Your task to perform on an android device: Go to Reddit.com Image 0: 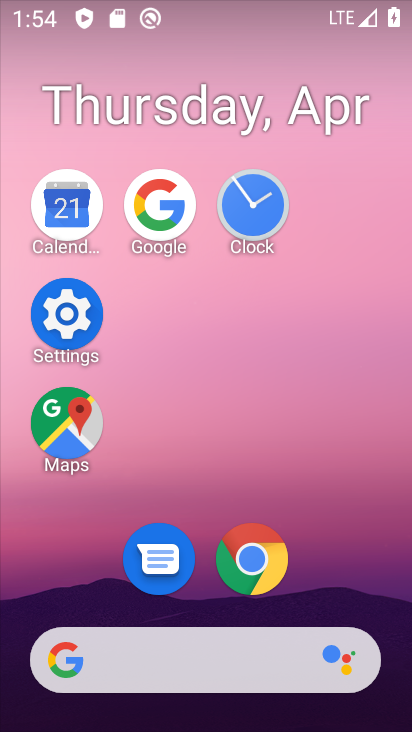
Step 0: click (268, 570)
Your task to perform on an android device: Go to Reddit.com Image 1: 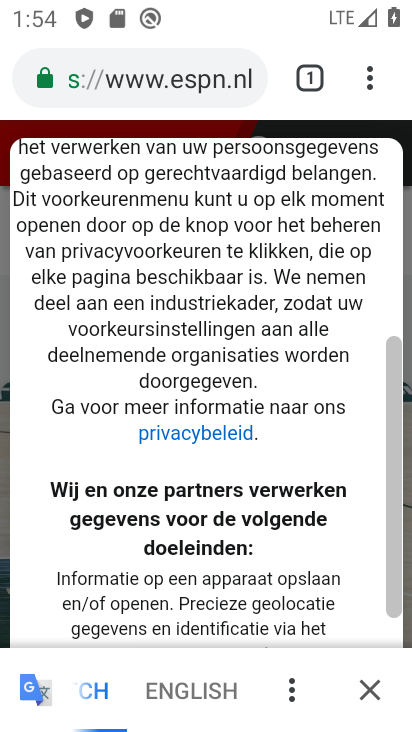
Step 1: click (312, 73)
Your task to perform on an android device: Go to Reddit.com Image 2: 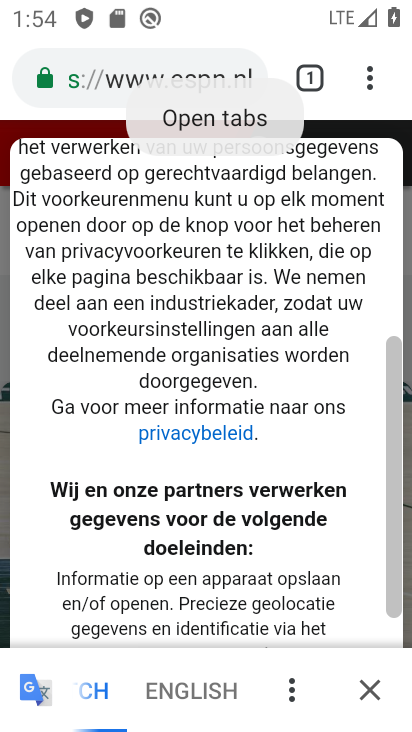
Step 2: click (302, 75)
Your task to perform on an android device: Go to Reddit.com Image 3: 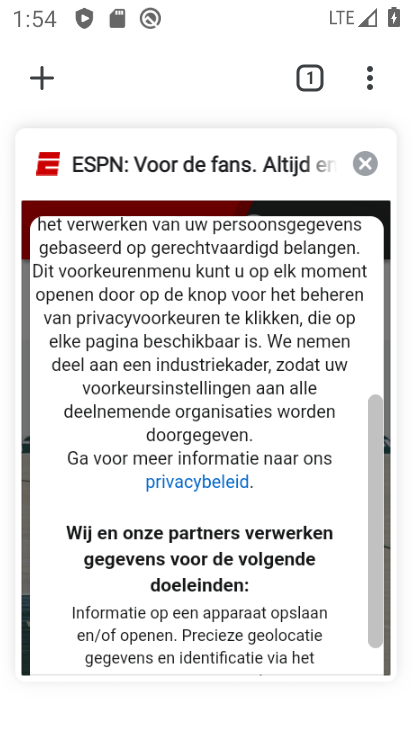
Step 3: click (57, 80)
Your task to perform on an android device: Go to Reddit.com Image 4: 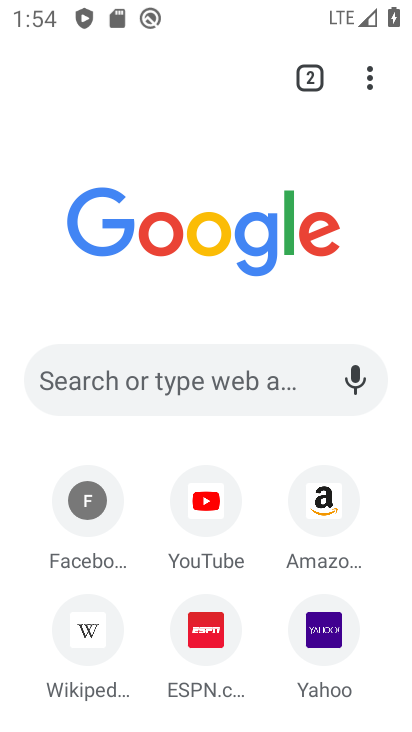
Step 4: click (217, 366)
Your task to perform on an android device: Go to Reddit.com Image 5: 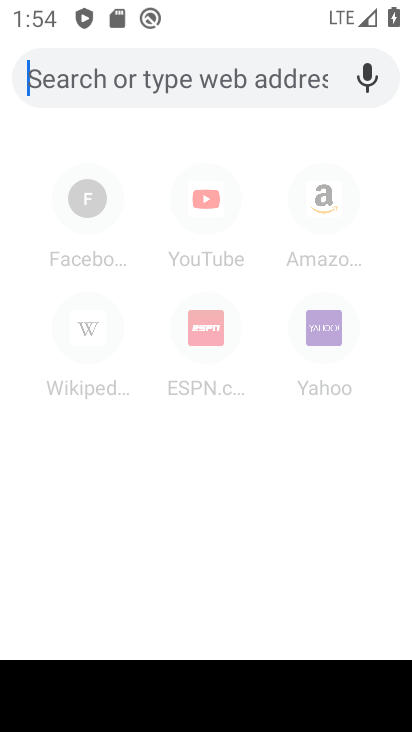
Step 5: type "reddit"
Your task to perform on an android device: Go to Reddit.com Image 6: 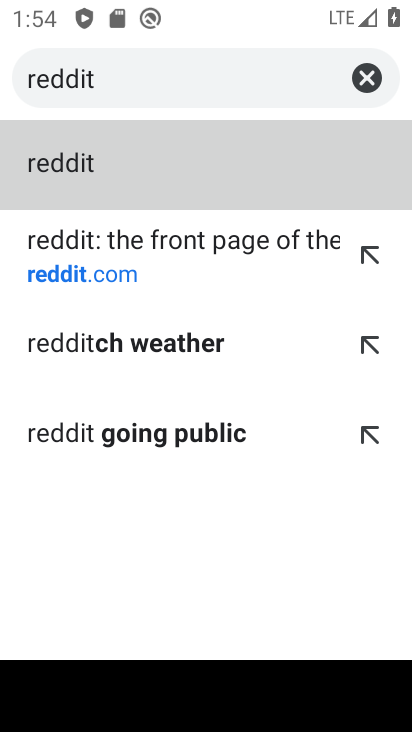
Step 6: click (141, 259)
Your task to perform on an android device: Go to Reddit.com Image 7: 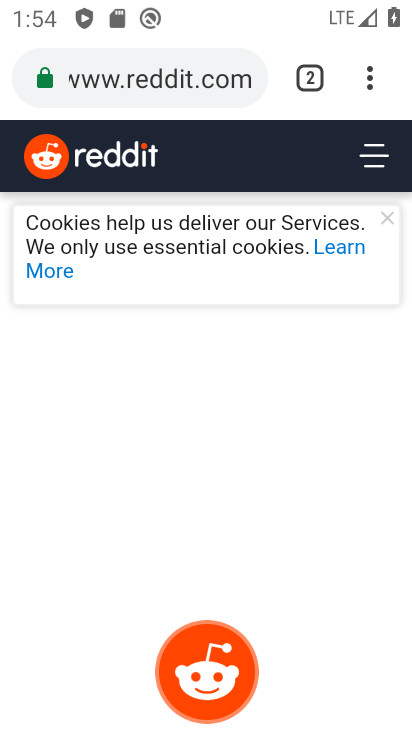
Step 7: task complete